Your task to perform on an android device: Open CNN.com Image 0: 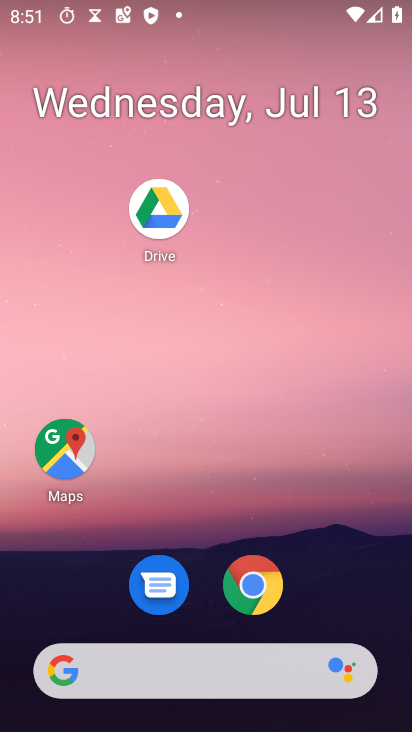
Step 0: click (284, 581)
Your task to perform on an android device: Open CNN.com Image 1: 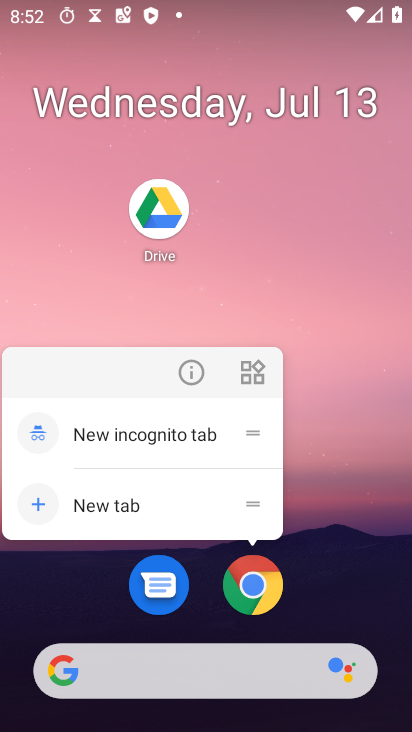
Step 1: click (254, 589)
Your task to perform on an android device: Open CNN.com Image 2: 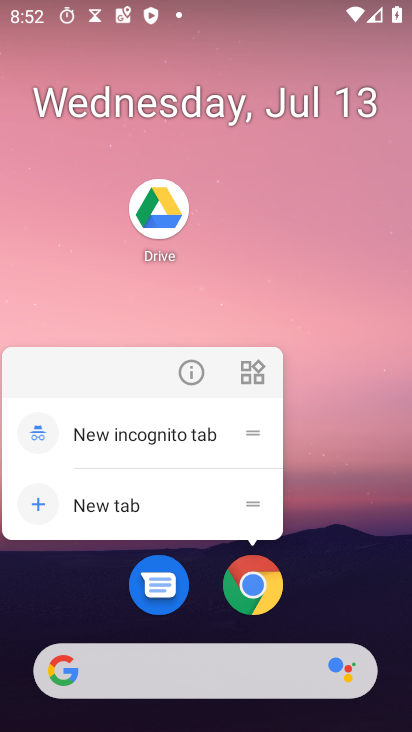
Step 2: click (254, 590)
Your task to perform on an android device: Open CNN.com Image 3: 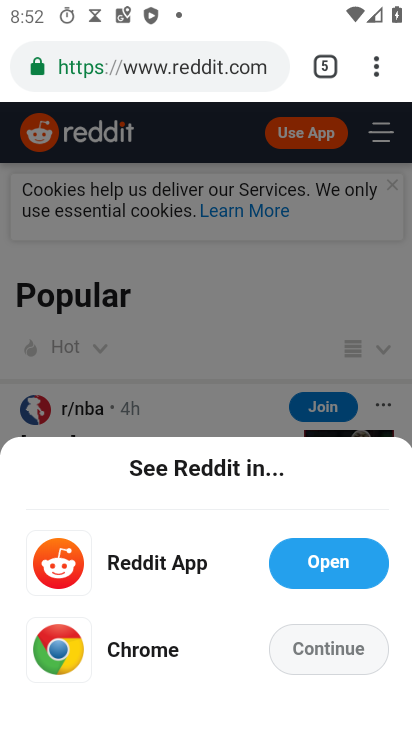
Step 3: drag from (374, 73) to (239, 140)
Your task to perform on an android device: Open CNN.com Image 4: 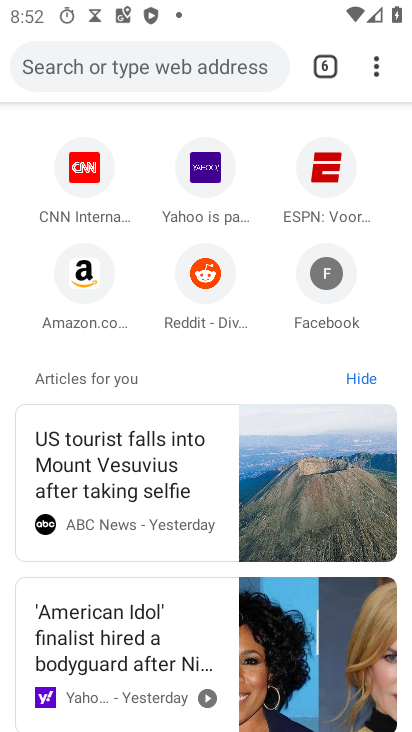
Step 4: type "cnn.c0m"
Your task to perform on an android device: Open CNN.com Image 5: 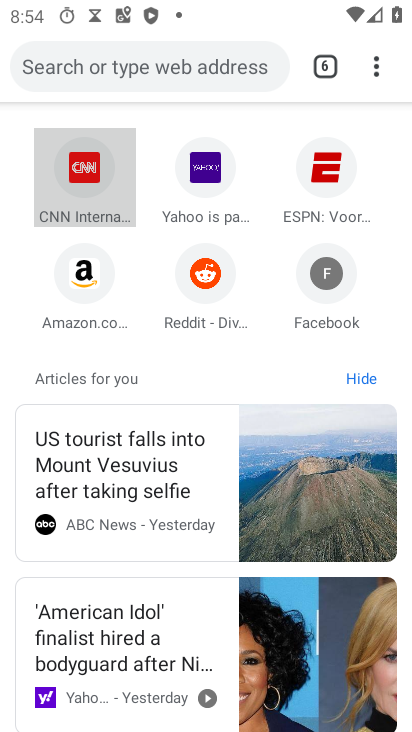
Step 5: click (78, 196)
Your task to perform on an android device: Open CNN.com Image 6: 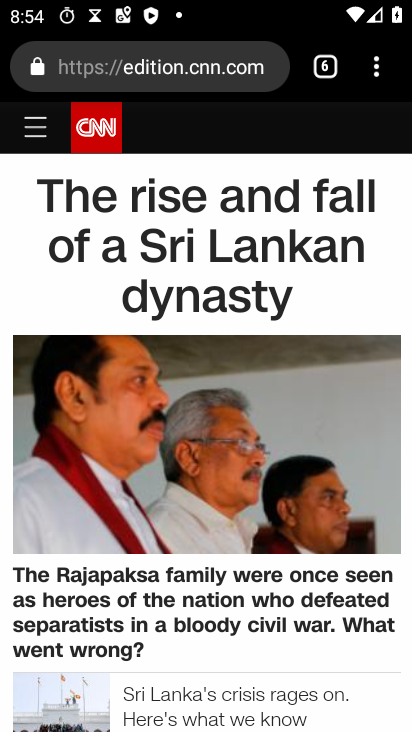
Step 6: task complete